Your task to perform on an android device: Open the Play Movies app and select the watchlist tab. Image 0: 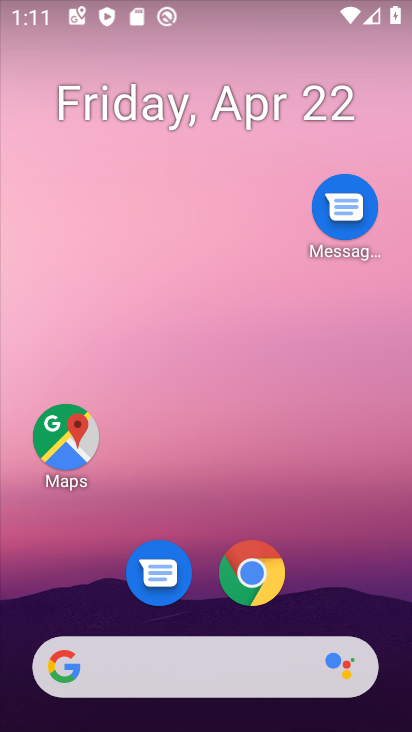
Step 0: drag from (339, 609) to (319, 182)
Your task to perform on an android device: Open the Play Movies app and select the watchlist tab. Image 1: 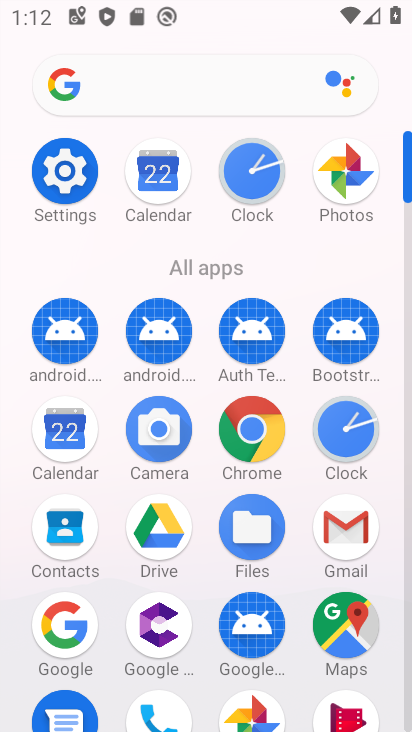
Step 1: drag from (296, 648) to (294, 477)
Your task to perform on an android device: Open the Play Movies app and select the watchlist tab. Image 2: 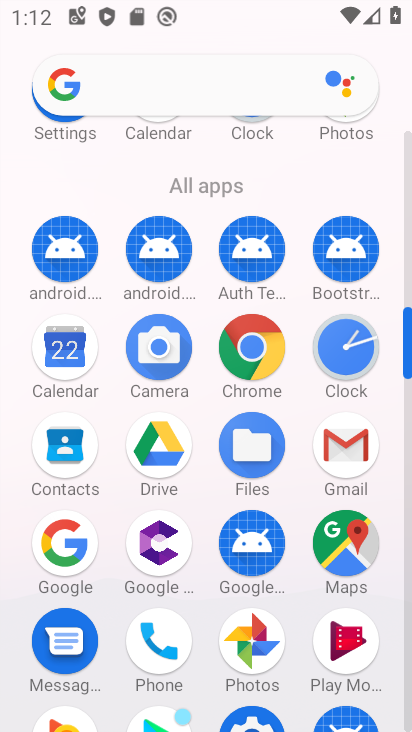
Step 2: click (347, 662)
Your task to perform on an android device: Open the Play Movies app and select the watchlist tab. Image 3: 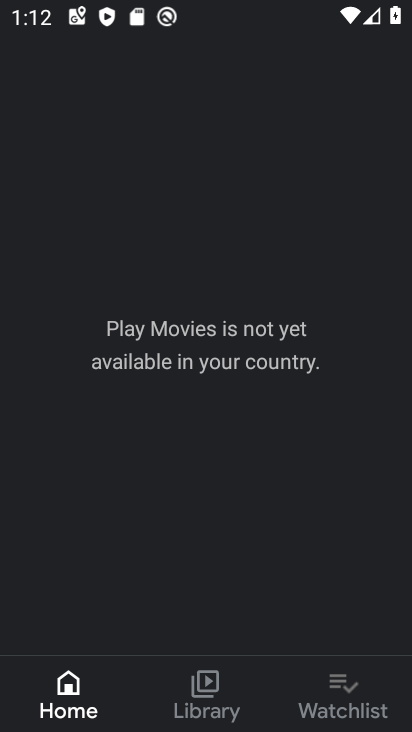
Step 3: click (340, 700)
Your task to perform on an android device: Open the Play Movies app and select the watchlist tab. Image 4: 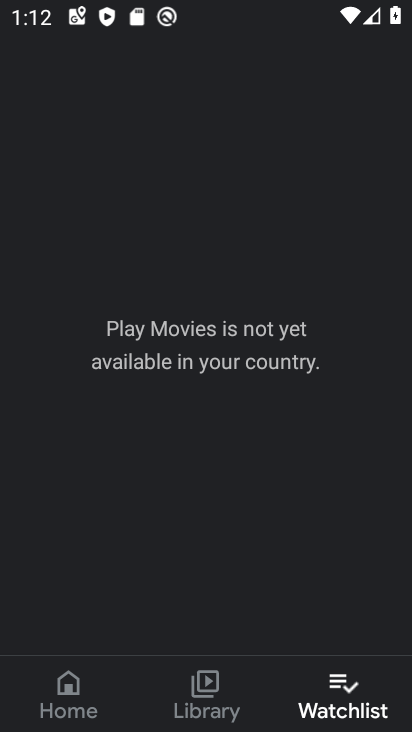
Step 4: task complete